Your task to perform on an android device: turn notification dots off Image 0: 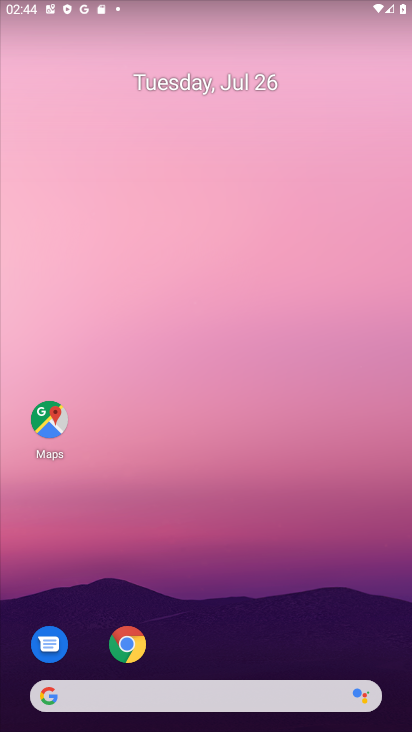
Step 0: drag from (203, 659) to (215, 64)
Your task to perform on an android device: turn notification dots off Image 1: 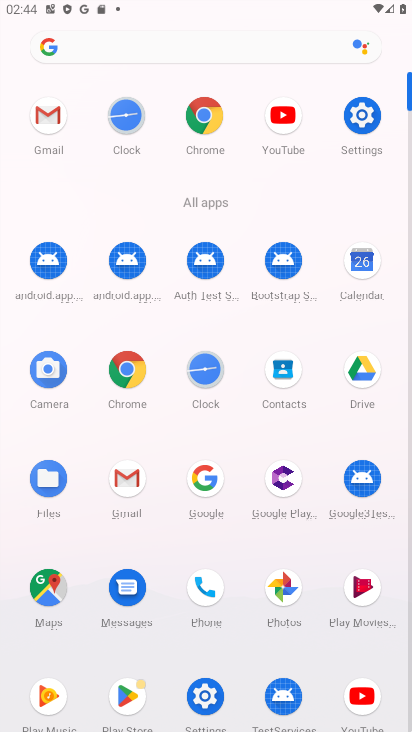
Step 1: click (361, 116)
Your task to perform on an android device: turn notification dots off Image 2: 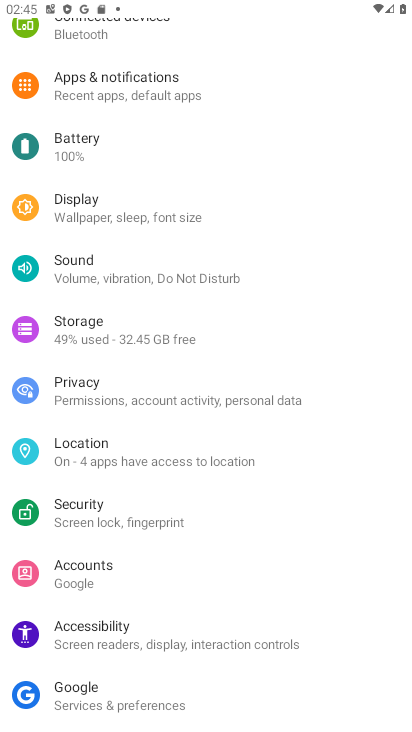
Step 2: click (165, 97)
Your task to perform on an android device: turn notification dots off Image 3: 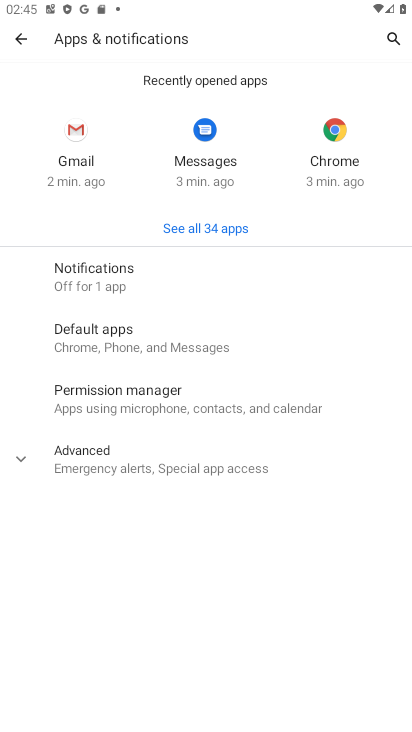
Step 3: click (122, 268)
Your task to perform on an android device: turn notification dots off Image 4: 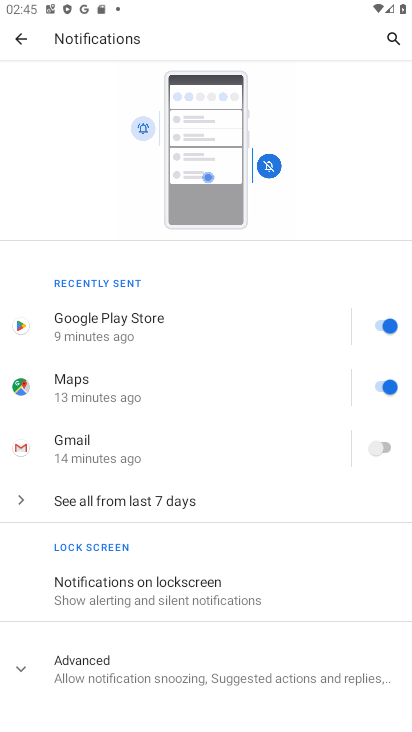
Step 4: click (133, 666)
Your task to perform on an android device: turn notification dots off Image 5: 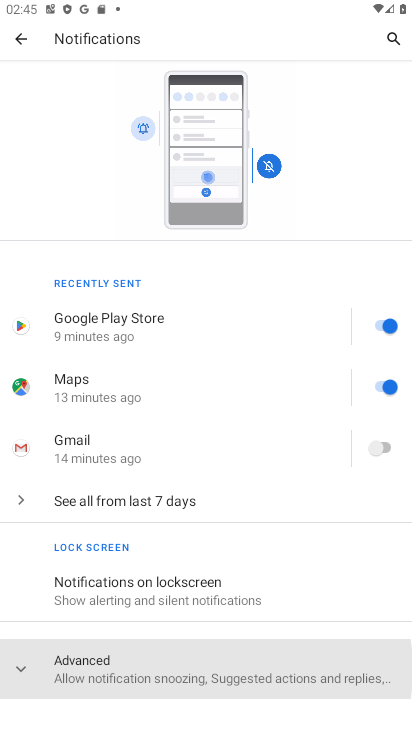
Step 5: drag from (133, 666) to (69, 181)
Your task to perform on an android device: turn notification dots off Image 6: 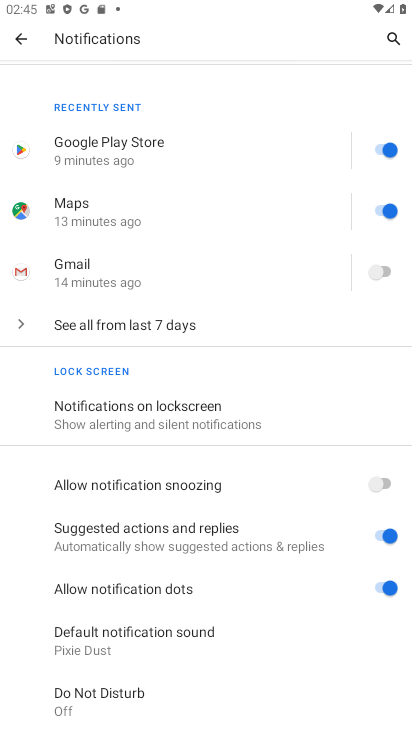
Step 6: click (380, 585)
Your task to perform on an android device: turn notification dots off Image 7: 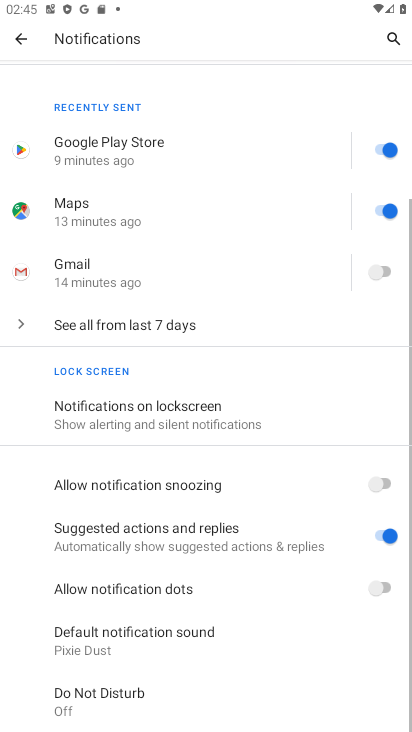
Step 7: task complete